Your task to perform on an android device: Open CNN.com Image 0: 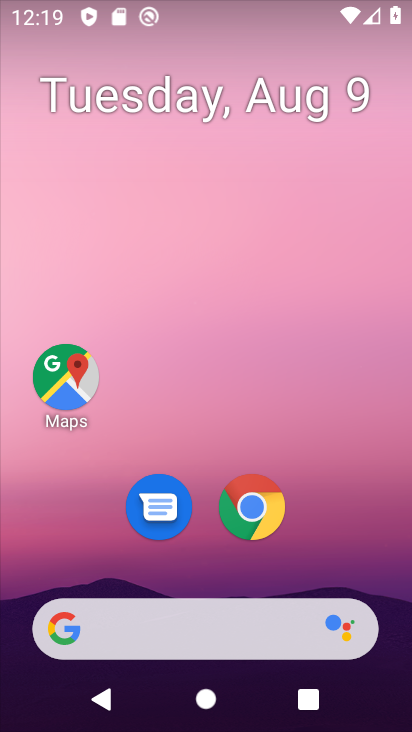
Step 0: click (256, 519)
Your task to perform on an android device: Open CNN.com Image 1: 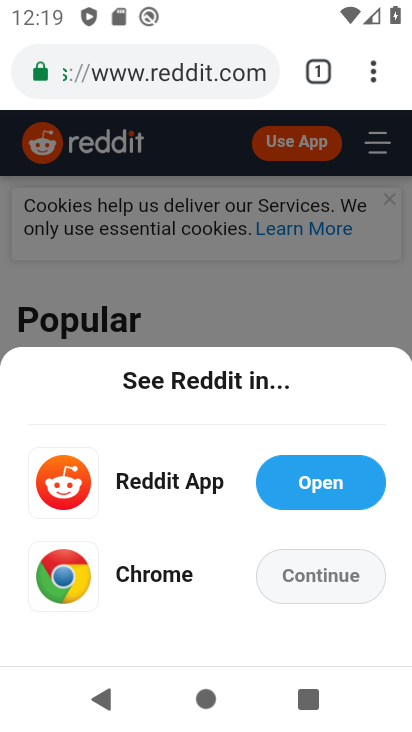
Step 1: click (229, 68)
Your task to perform on an android device: Open CNN.com Image 2: 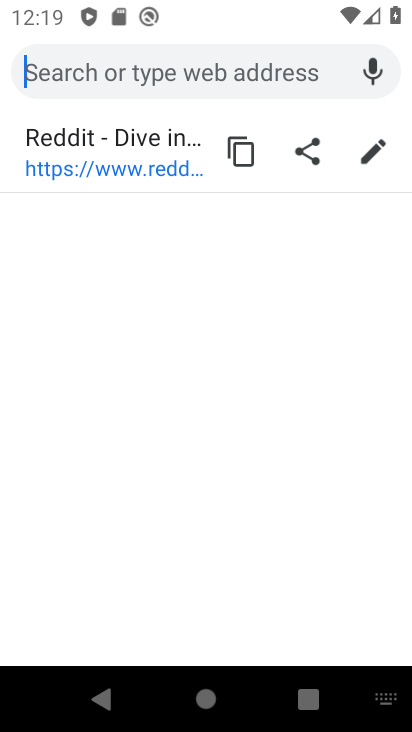
Step 2: type "cnn.com"
Your task to perform on an android device: Open CNN.com Image 3: 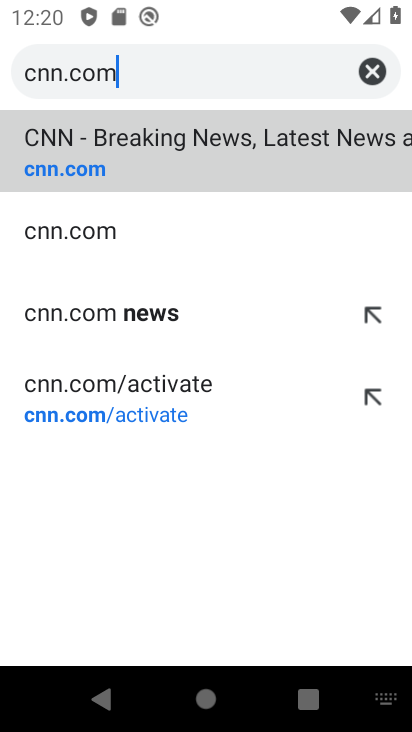
Step 3: click (347, 145)
Your task to perform on an android device: Open CNN.com Image 4: 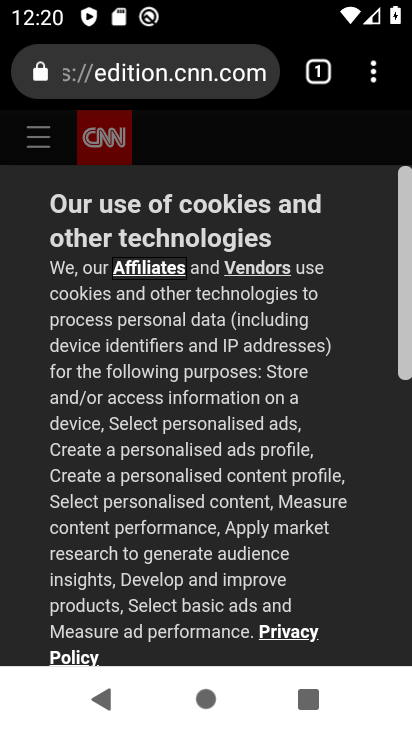
Step 4: task complete